Your task to perform on an android device: refresh tabs in the chrome app Image 0: 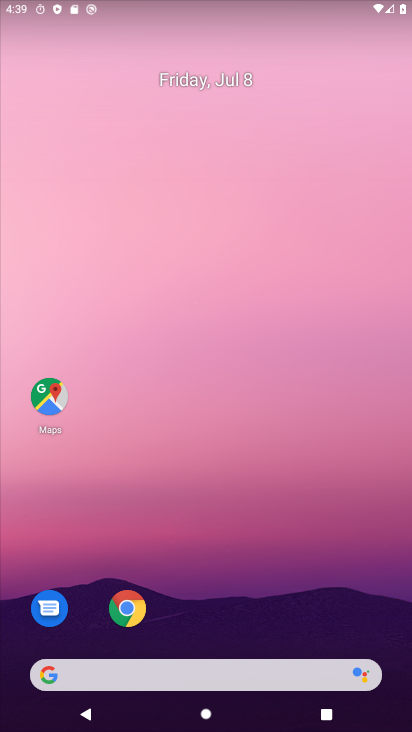
Step 0: press home button
Your task to perform on an android device: refresh tabs in the chrome app Image 1: 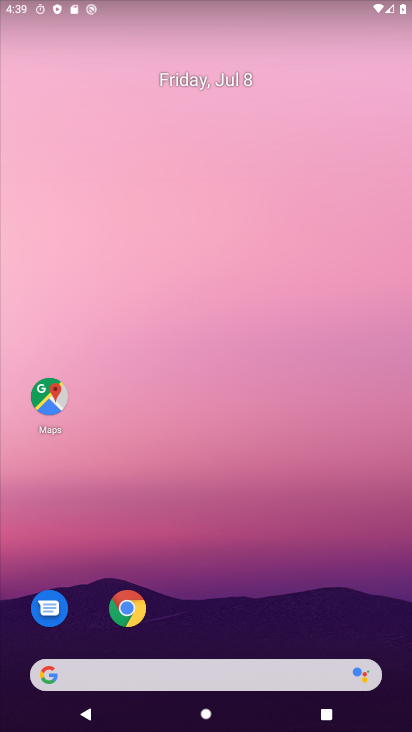
Step 1: drag from (225, 554) to (184, 36)
Your task to perform on an android device: refresh tabs in the chrome app Image 2: 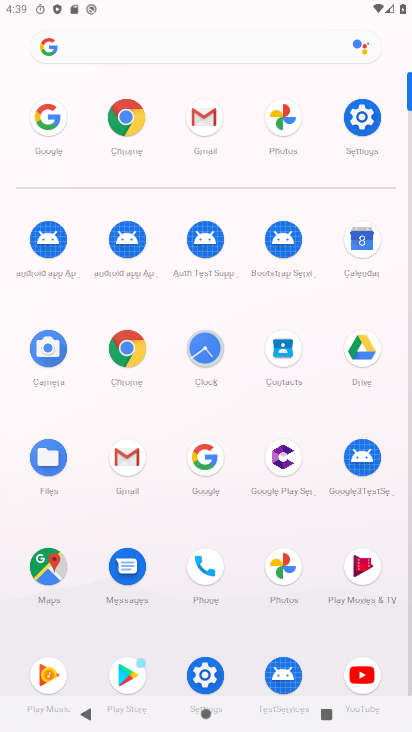
Step 2: click (128, 118)
Your task to perform on an android device: refresh tabs in the chrome app Image 3: 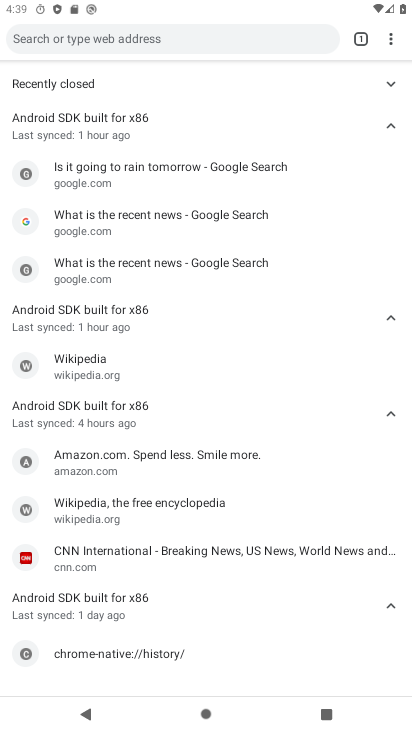
Step 3: click (387, 48)
Your task to perform on an android device: refresh tabs in the chrome app Image 4: 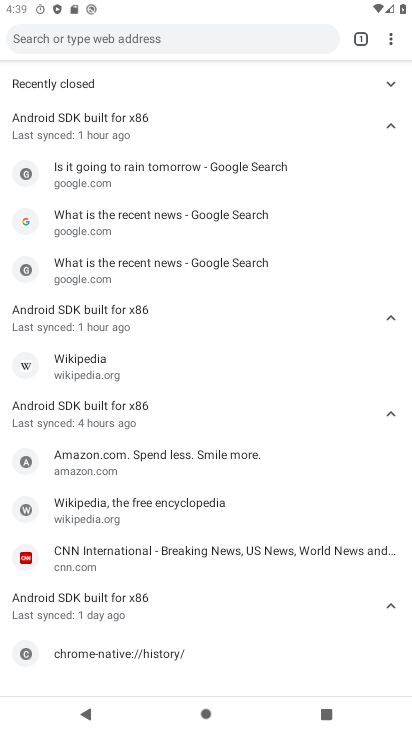
Step 4: click (390, 42)
Your task to perform on an android device: refresh tabs in the chrome app Image 5: 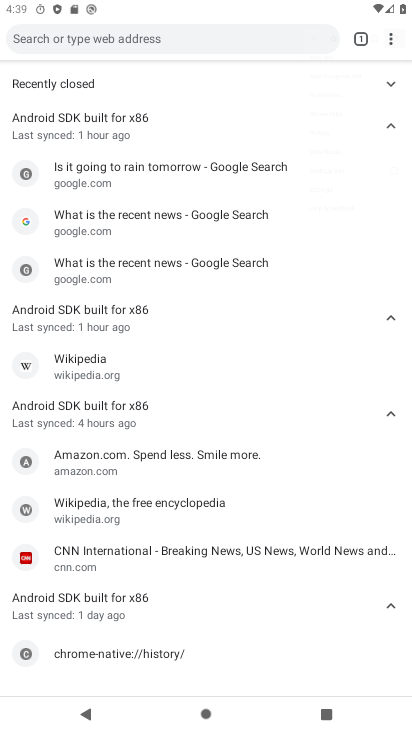
Step 5: click (394, 45)
Your task to perform on an android device: refresh tabs in the chrome app Image 6: 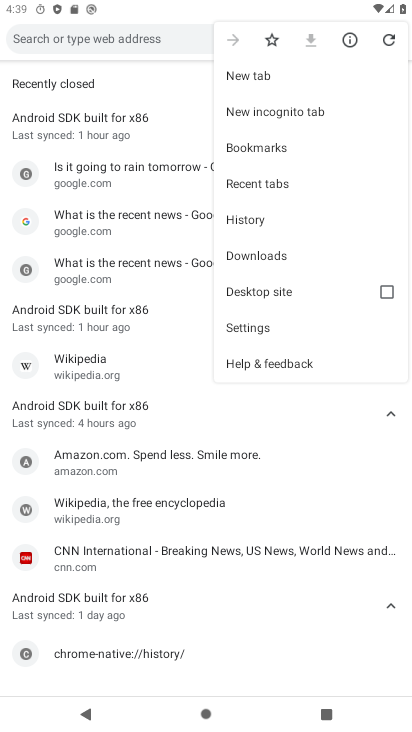
Step 6: click (392, 38)
Your task to perform on an android device: refresh tabs in the chrome app Image 7: 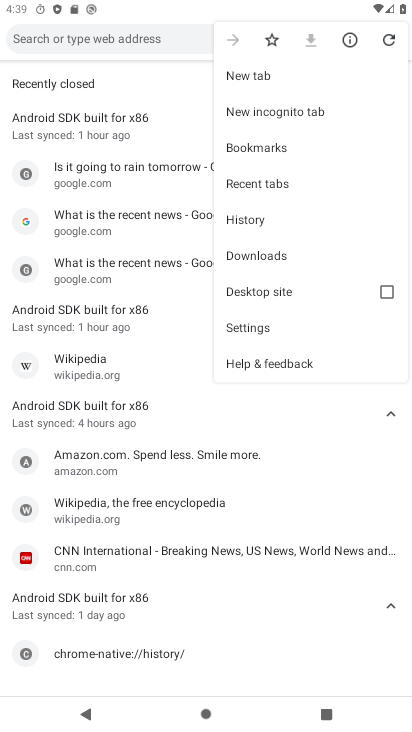
Step 7: click (392, 38)
Your task to perform on an android device: refresh tabs in the chrome app Image 8: 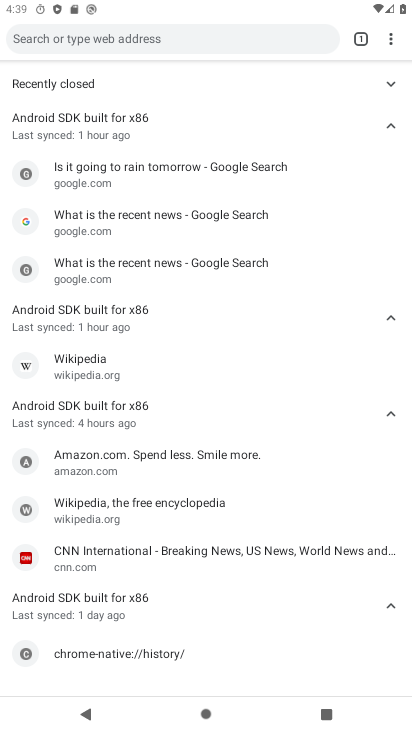
Step 8: click (391, 39)
Your task to perform on an android device: refresh tabs in the chrome app Image 9: 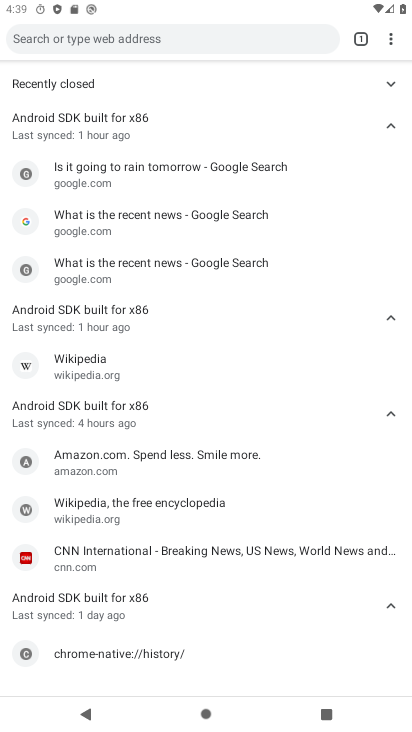
Step 9: click (391, 39)
Your task to perform on an android device: refresh tabs in the chrome app Image 10: 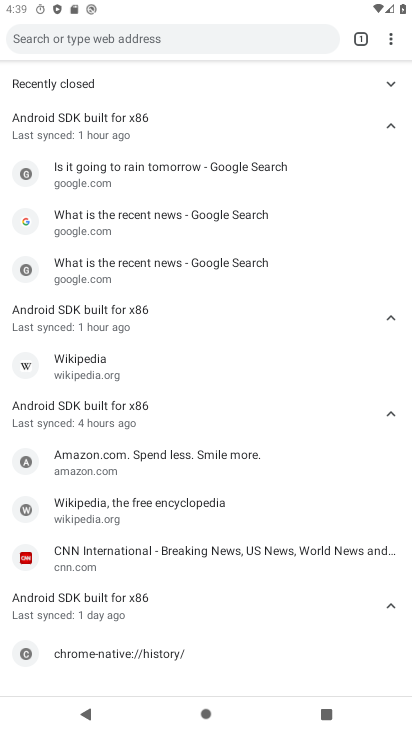
Step 10: click (391, 44)
Your task to perform on an android device: refresh tabs in the chrome app Image 11: 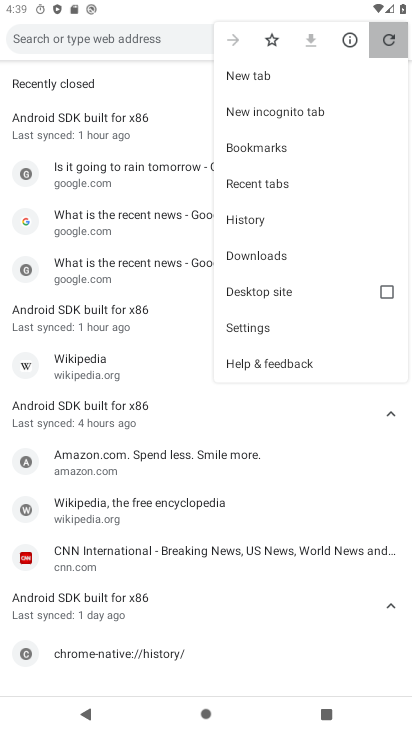
Step 11: click (391, 44)
Your task to perform on an android device: refresh tabs in the chrome app Image 12: 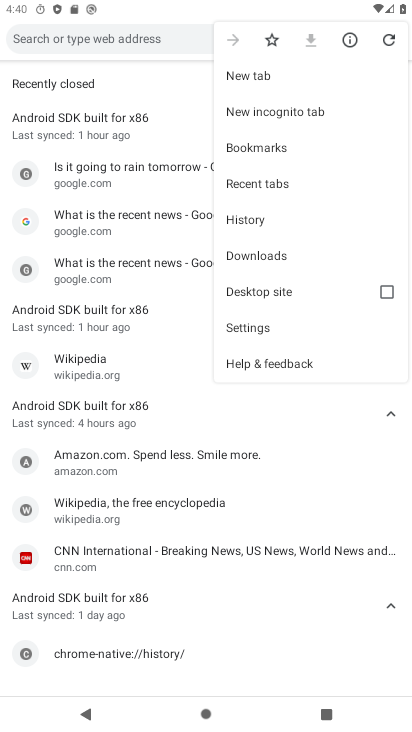
Step 12: task complete